Your task to perform on an android device: toggle javascript in the chrome app Image 0: 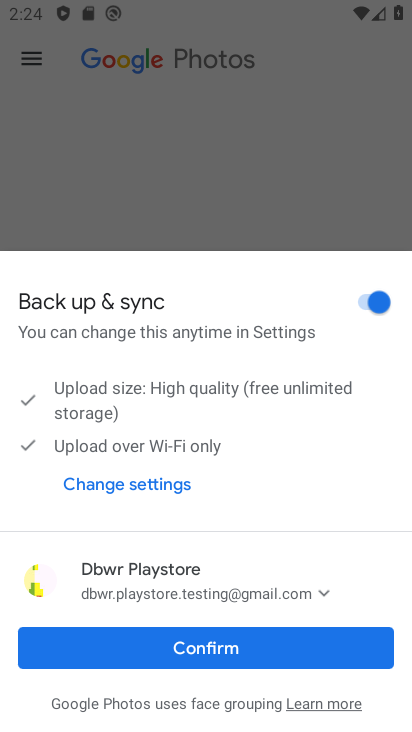
Step 0: press home button
Your task to perform on an android device: toggle javascript in the chrome app Image 1: 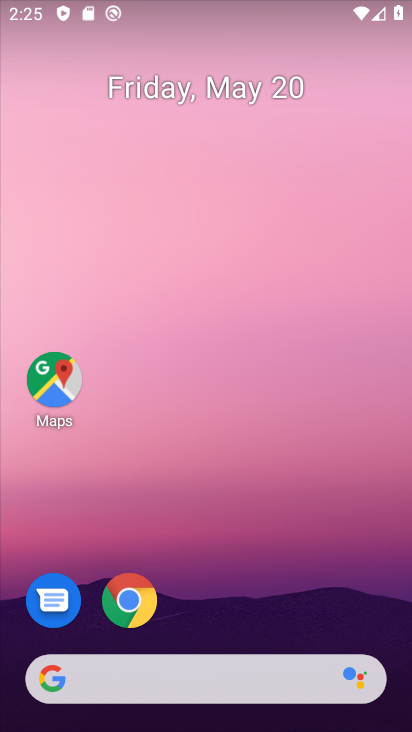
Step 1: drag from (332, 601) to (357, 175)
Your task to perform on an android device: toggle javascript in the chrome app Image 2: 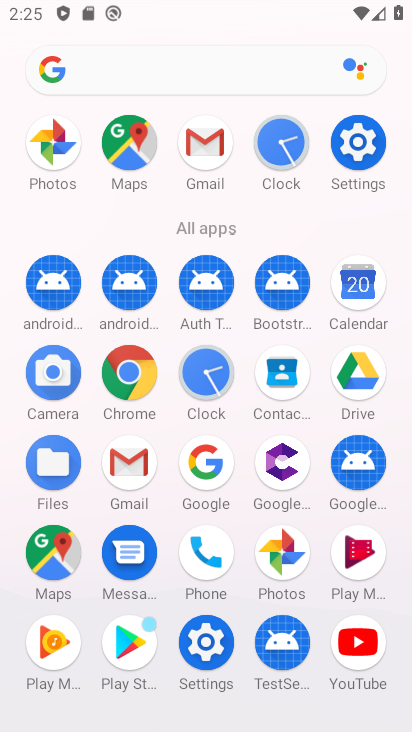
Step 2: click (141, 388)
Your task to perform on an android device: toggle javascript in the chrome app Image 3: 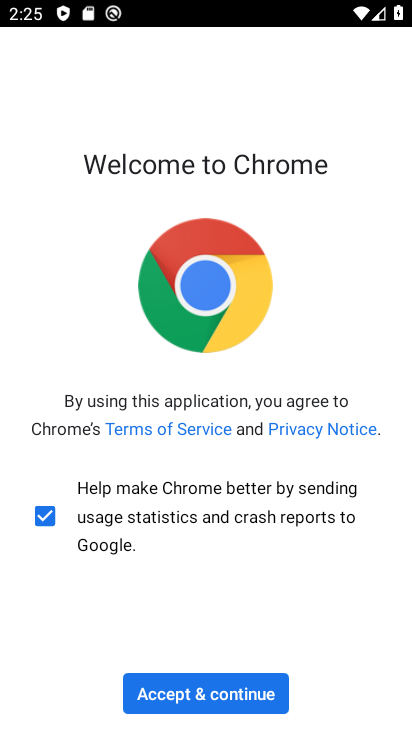
Step 3: click (226, 690)
Your task to perform on an android device: toggle javascript in the chrome app Image 4: 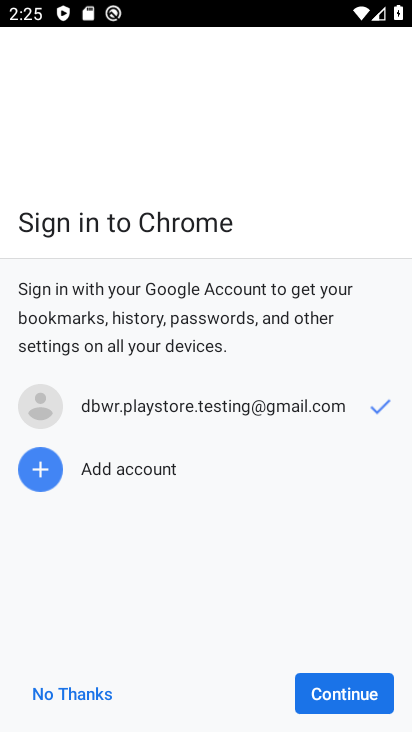
Step 4: click (321, 688)
Your task to perform on an android device: toggle javascript in the chrome app Image 5: 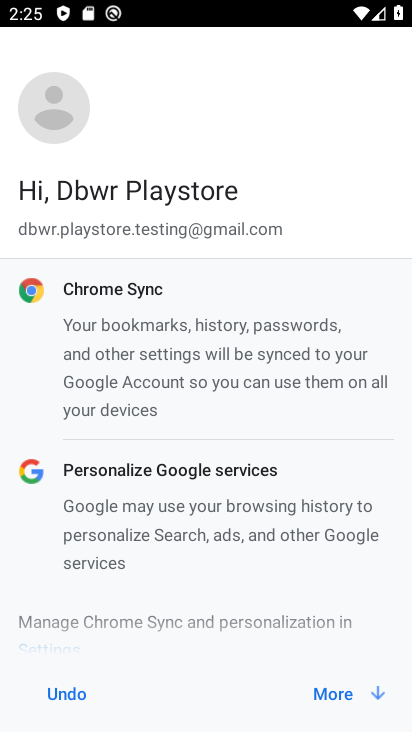
Step 5: click (321, 688)
Your task to perform on an android device: toggle javascript in the chrome app Image 6: 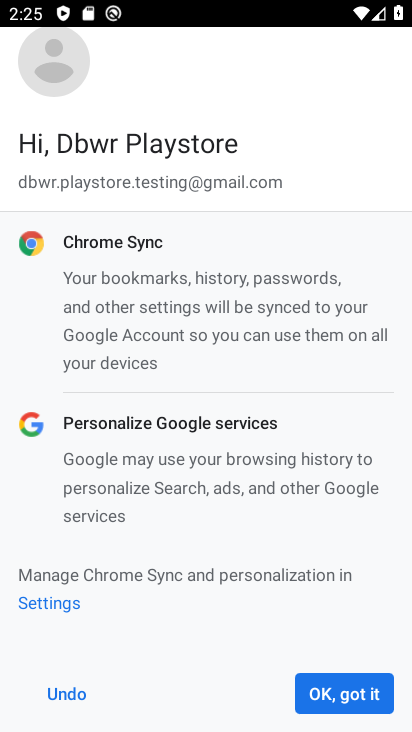
Step 6: click (321, 688)
Your task to perform on an android device: toggle javascript in the chrome app Image 7: 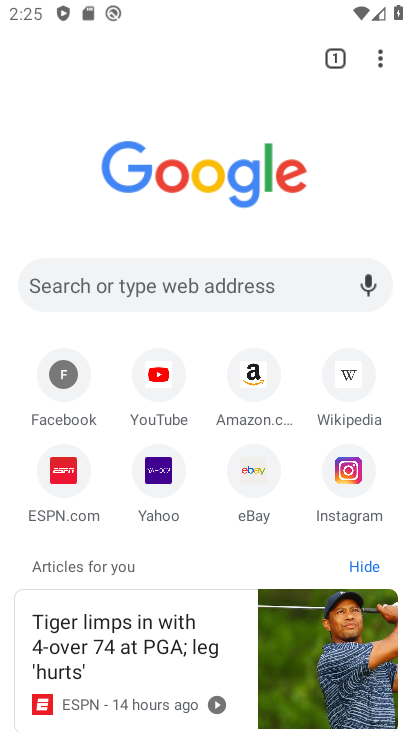
Step 7: click (381, 64)
Your task to perform on an android device: toggle javascript in the chrome app Image 8: 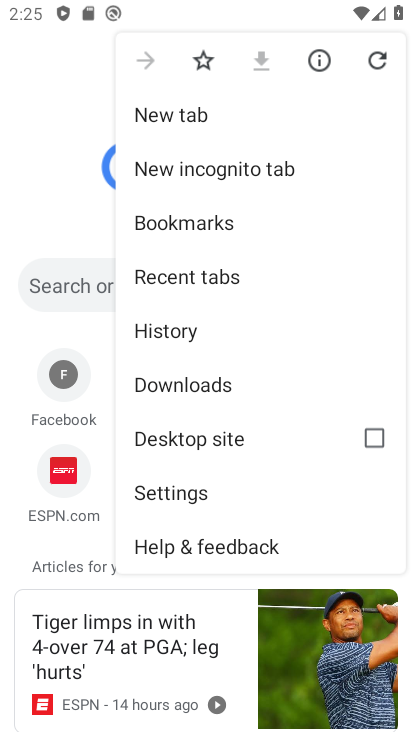
Step 8: click (214, 497)
Your task to perform on an android device: toggle javascript in the chrome app Image 9: 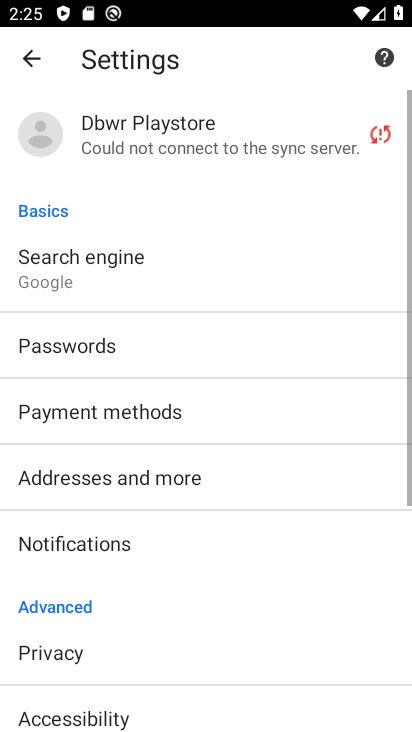
Step 9: drag from (248, 524) to (263, 439)
Your task to perform on an android device: toggle javascript in the chrome app Image 10: 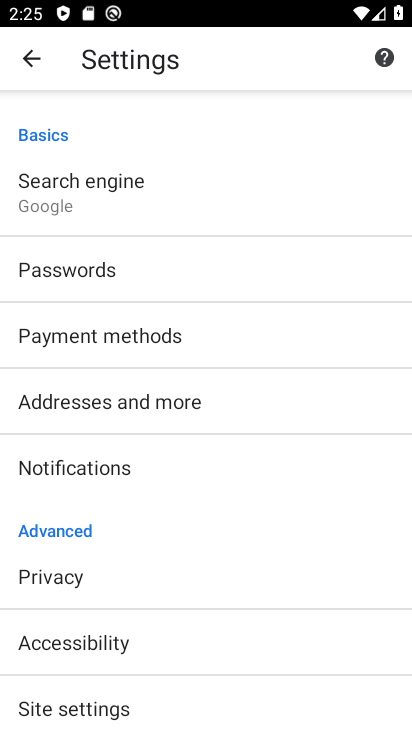
Step 10: drag from (251, 533) to (272, 413)
Your task to perform on an android device: toggle javascript in the chrome app Image 11: 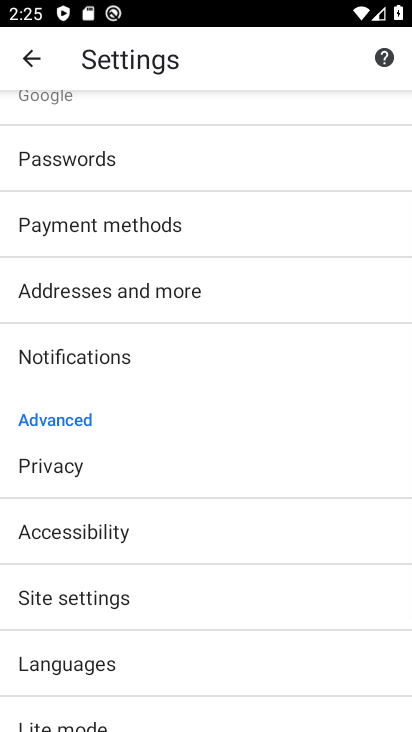
Step 11: drag from (253, 566) to (263, 460)
Your task to perform on an android device: toggle javascript in the chrome app Image 12: 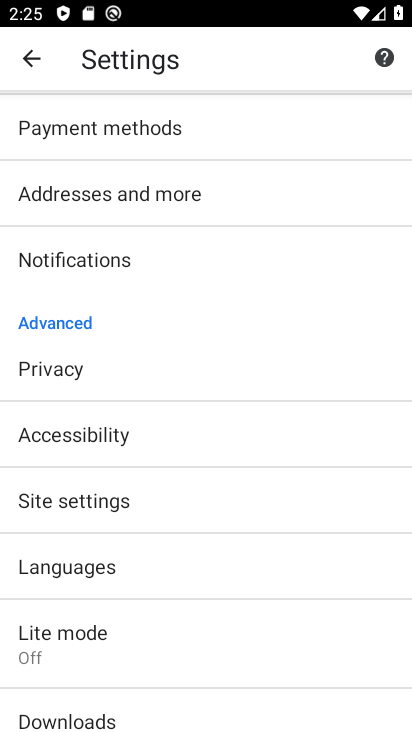
Step 12: drag from (256, 543) to (267, 450)
Your task to perform on an android device: toggle javascript in the chrome app Image 13: 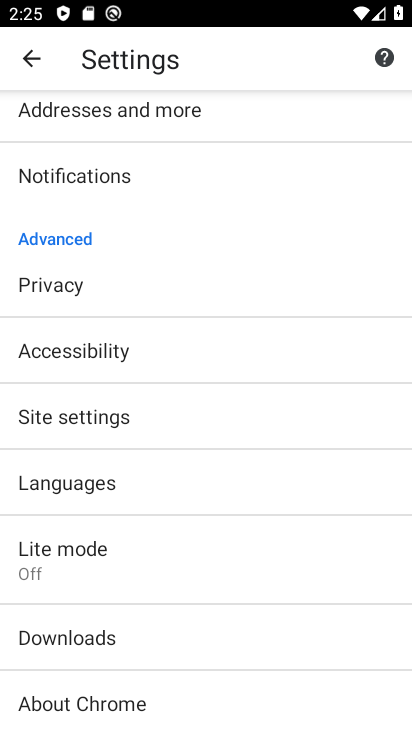
Step 13: drag from (247, 554) to (278, 465)
Your task to perform on an android device: toggle javascript in the chrome app Image 14: 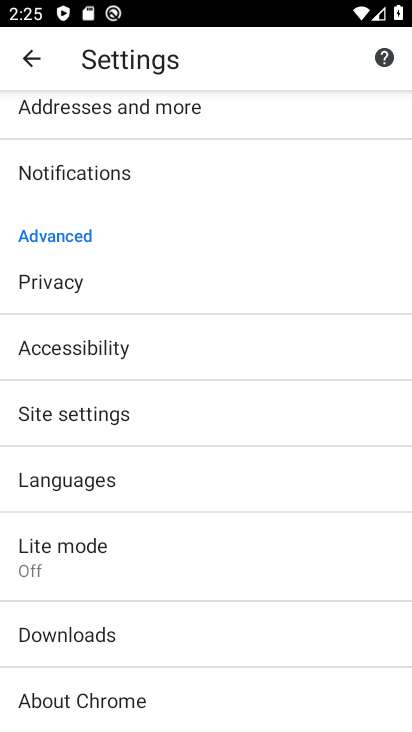
Step 14: drag from (295, 561) to (307, 467)
Your task to perform on an android device: toggle javascript in the chrome app Image 15: 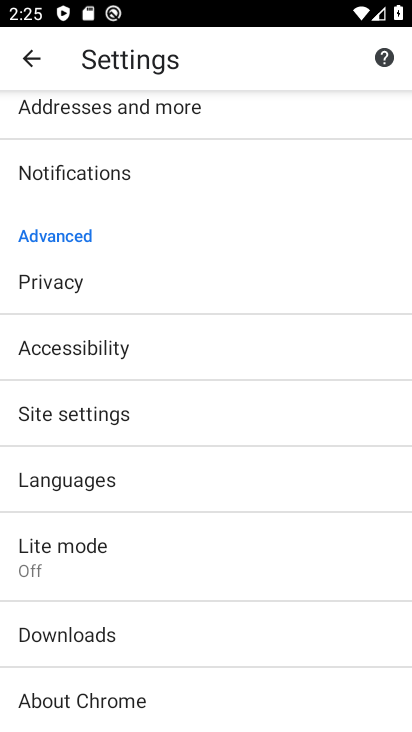
Step 15: click (213, 403)
Your task to perform on an android device: toggle javascript in the chrome app Image 16: 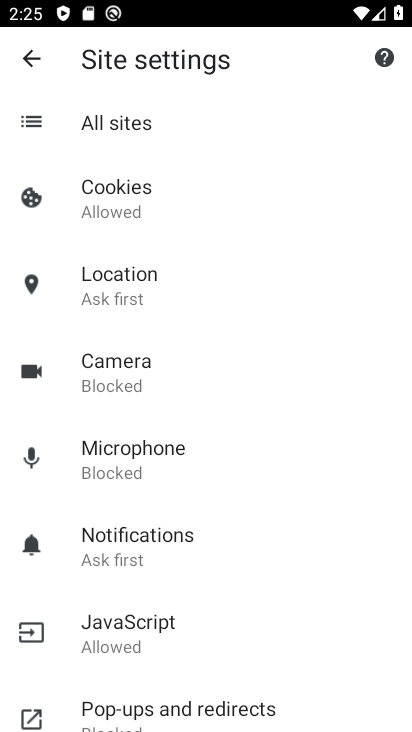
Step 16: drag from (291, 571) to (302, 482)
Your task to perform on an android device: toggle javascript in the chrome app Image 17: 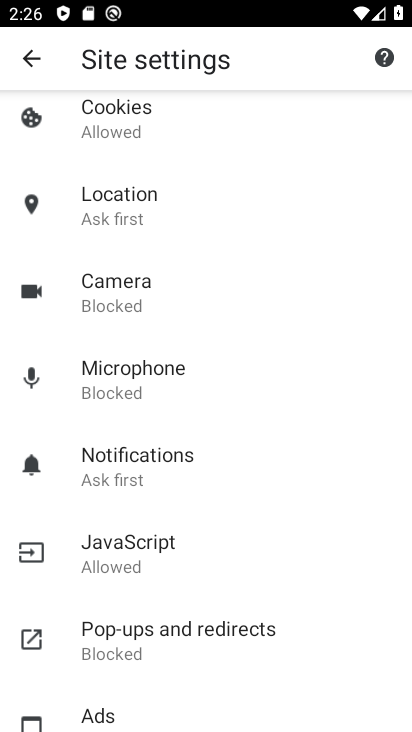
Step 17: drag from (307, 573) to (319, 471)
Your task to perform on an android device: toggle javascript in the chrome app Image 18: 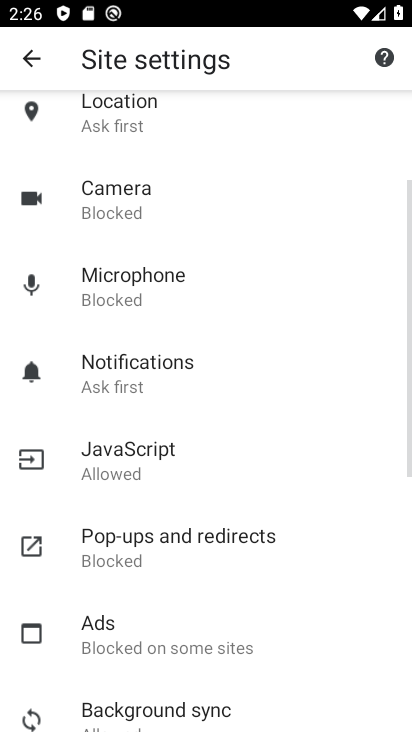
Step 18: drag from (314, 591) to (324, 519)
Your task to perform on an android device: toggle javascript in the chrome app Image 19: 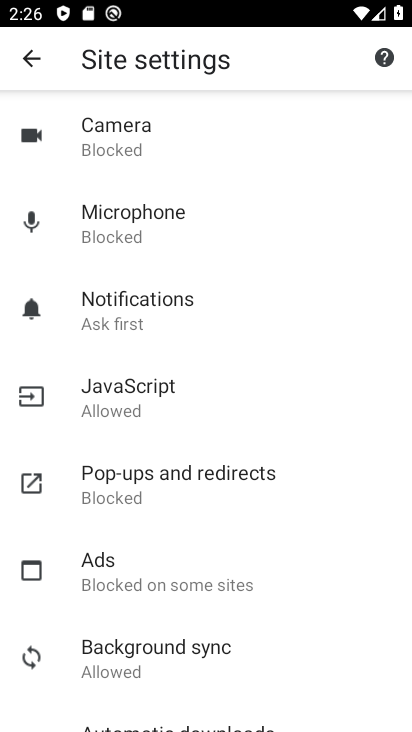
Step 19: drag from (320, 599) to (328, 498)
Your task to perform on an android device: toggle javascript in the chrome app Image 20: 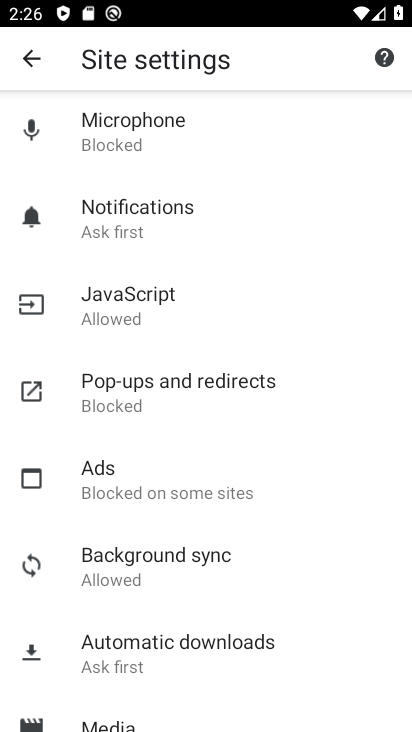
Step 20: click (211, 336)
Your task to perform on an android device: toggle javascript in the chrome app Image 21: 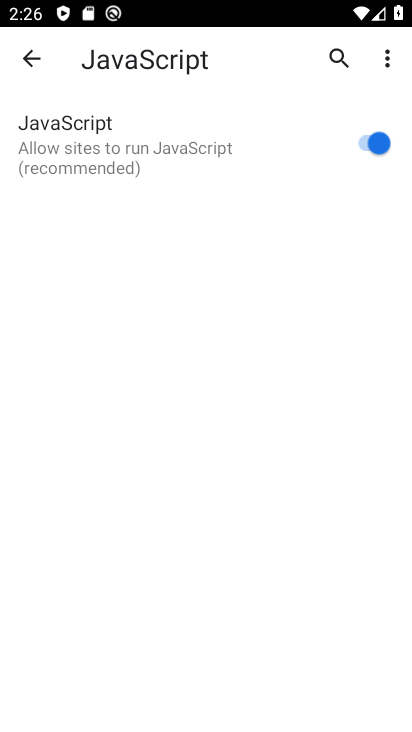
Step 21: click (372, 134)
Your task to perform on an android device: toggle javascript in the chrome app Image 22: 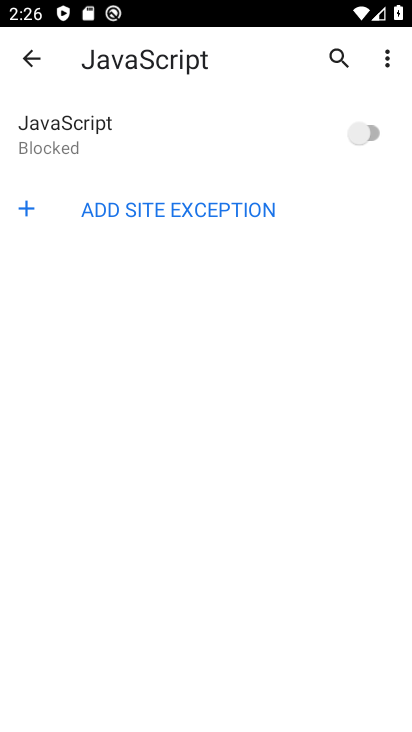
Step 22: task complete